Your task to perform on an android device: toggle javascript in the chrome app Image 0: 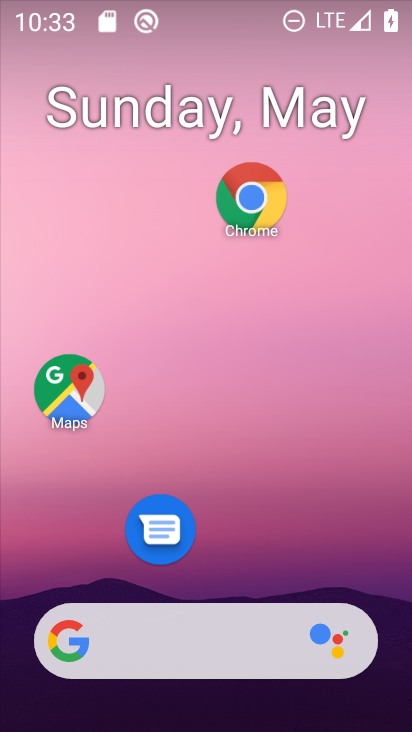
Step 0: click (254, 195)
Your task to perform on an android device: toggle javascript in the chrome app Image 1: 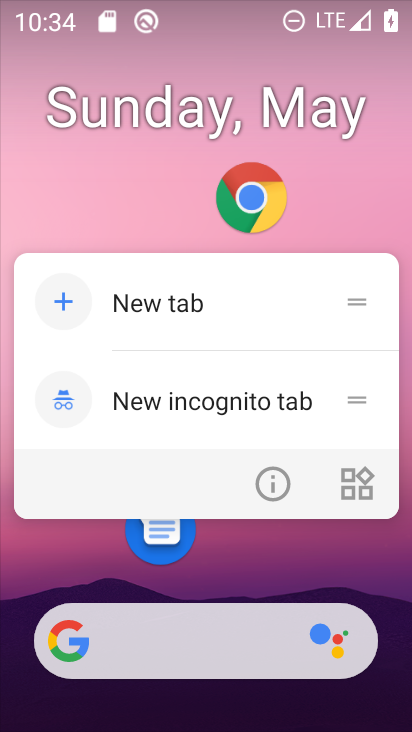
Step 1: click (254, 195)
Your task to perform on an android device: toggle javascript in the chrome app Image 2: 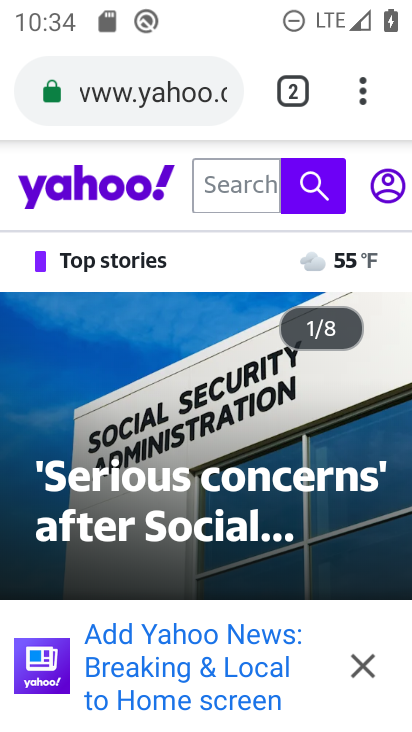
Step 2: click (363, 95)
Your task to perform on an android device: toggle javascript in the chrome app Image 3: 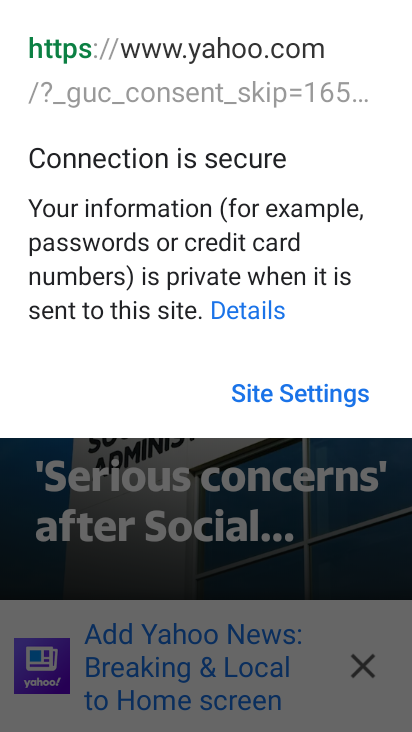
Step 3: click (213, 478)
Your task to perform on an android device: toggle javascript in the chrome app Image 4: 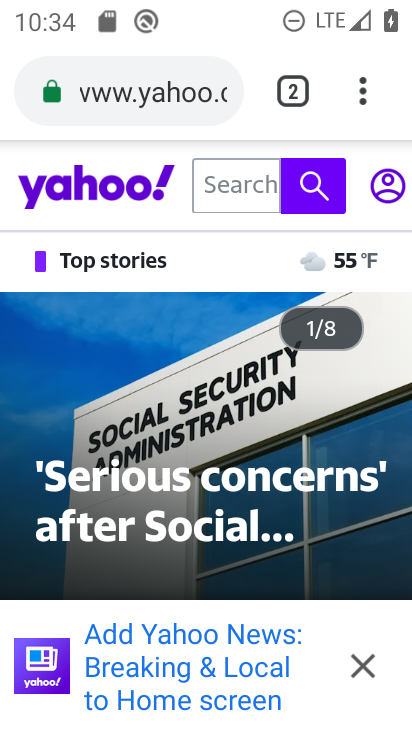
Step 4: click (380, 96)
Your task to perform on an android device: toggle javascript in the chrome app Image 5: 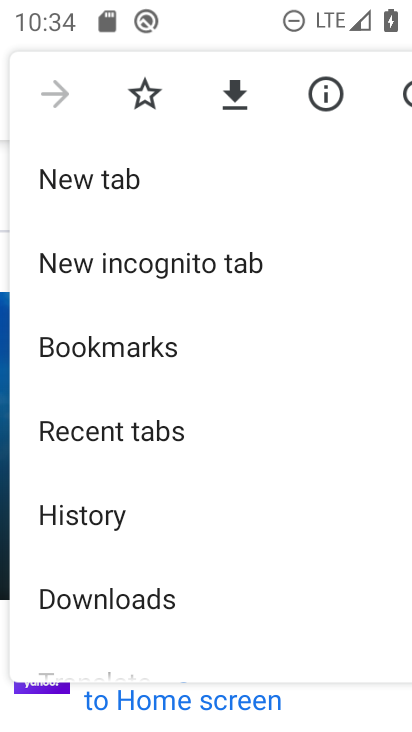
Step 5: drag from (155, 574) to (143, 235)
Your task to perform on an android device: toggle javascript in the chrome app Image 6: 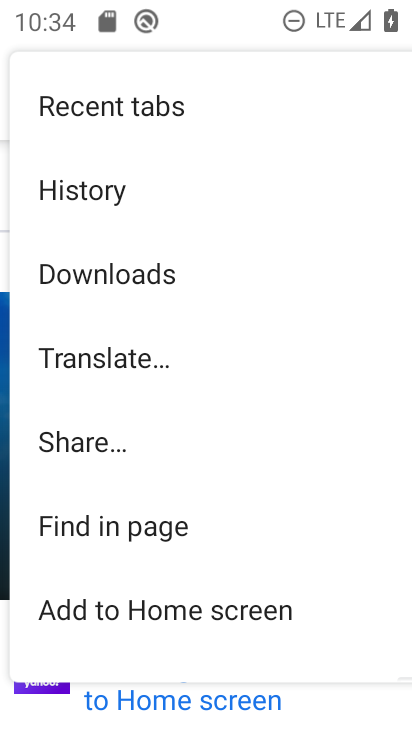
Step 6: drag from (178, 572) to (191, 336)
Your task to perform on an android device: toggle javascript in the chrome app Image 7: 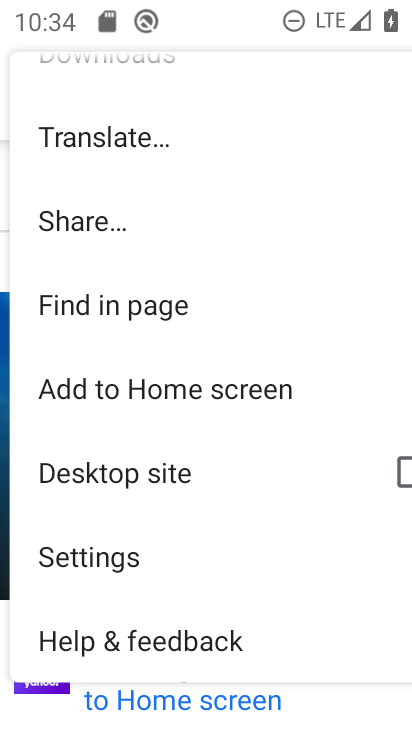
Step 7: click (133, 570)
Your task to perform on an android device: toggle javascript in the chrome app Image 8: 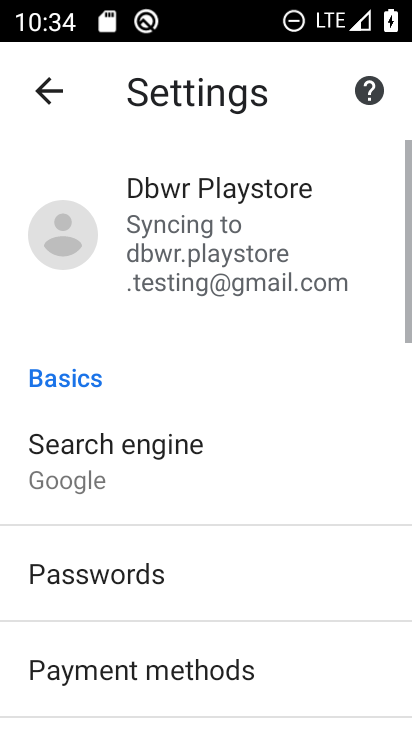
Step 8: drag from (155, 658) to (209, 342)
Your task to perform on an android device: toggle javascript in the chrome app Image 9: 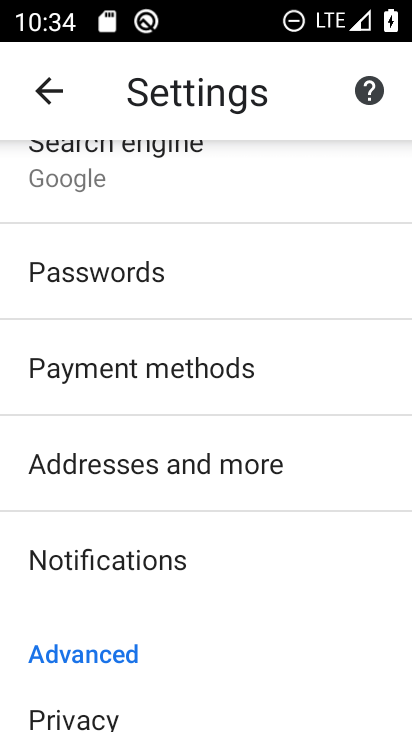
Step 9: drag from (175, 581) to (260, 250)
Your task to perform on an android device: toggle javascript in the chrome app Image 10: 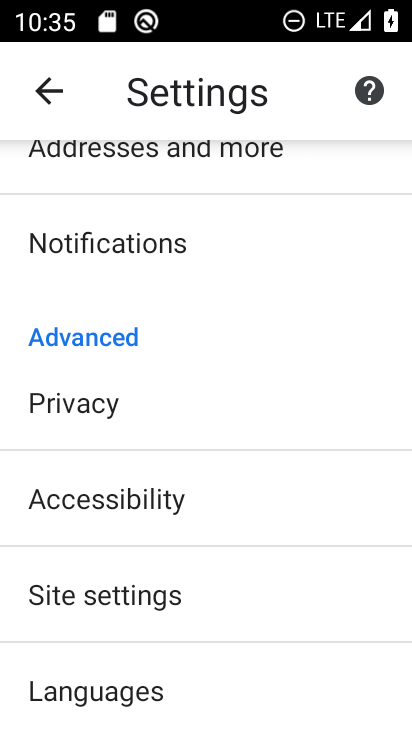
Step 10: click (177, 594)
Your task to perform on an android device: toggle javascript in the chrome app Image 11: 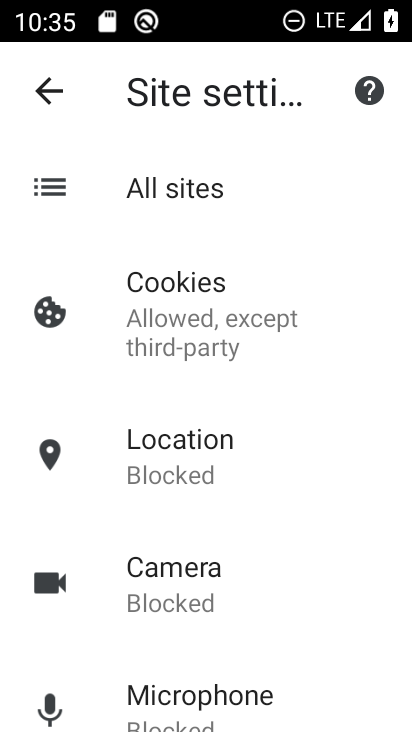
Step 11: drag from (204, 658) to (218, 363)
Your task to perform on an android device: toggle javascript in the chrome app Image 12: 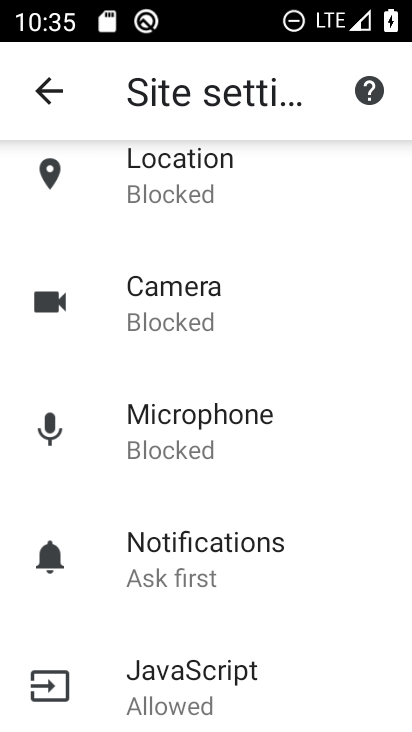
Step 12: drag from (220, 670) to (246, 437)
Your task to perform on an android device: toggle javascript in the chrome app Image 13: 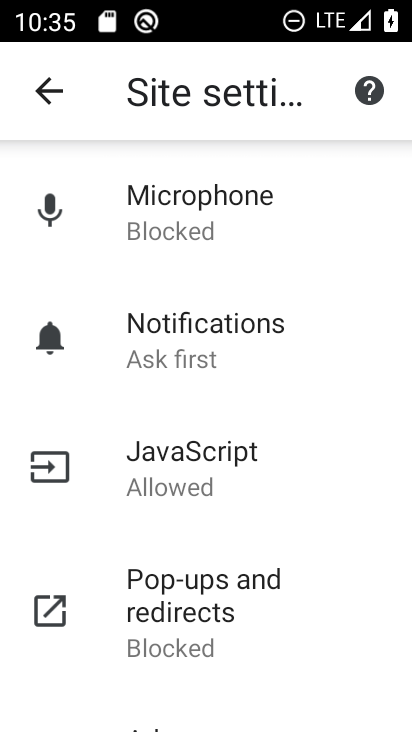
Step 13: click (214, 473)
Your task to perform on an android device: toggle javascript in the chrome app Image 14: 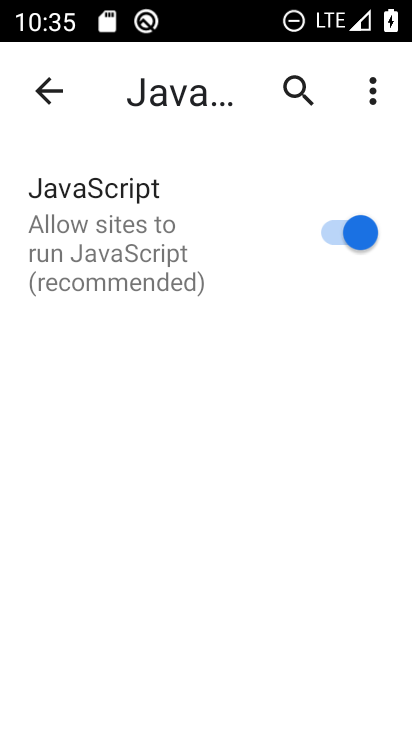
Step 14: click (331, 214)
Your task to perform on an android device: toggle javascript in the chrome app Image 15: 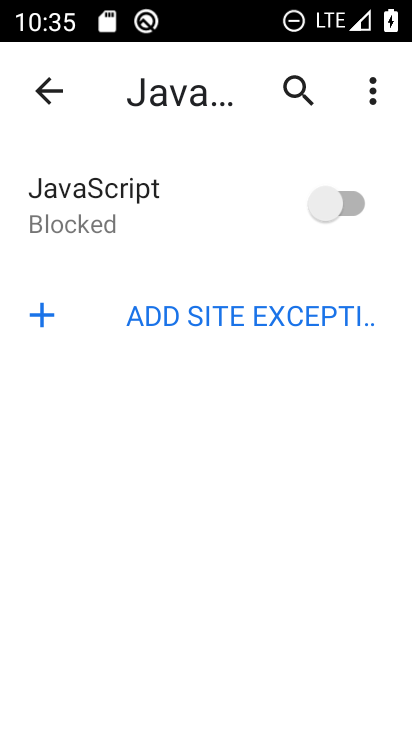
Step 15: task complete